Your task to perform on an android device: Open the web browser Image 0: 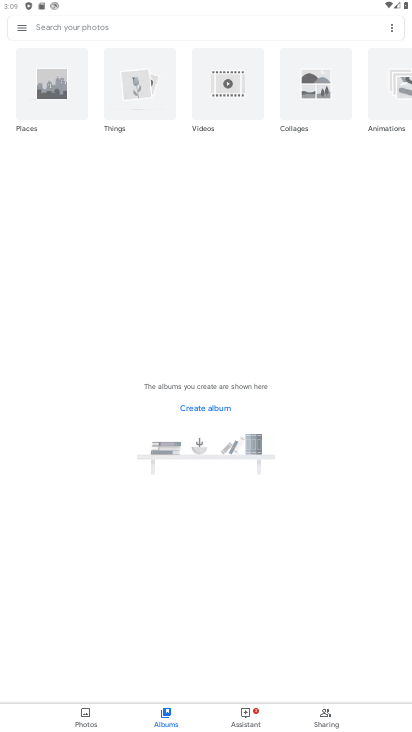
Step 0: press home button
Your task to perform on an android device: Open the web browser Image 1: 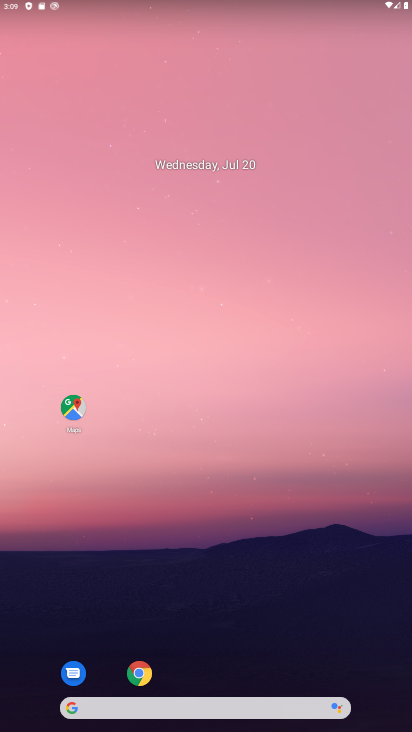
Step 1: click (138, 678)
Your task to perform on an android device: Open the web browser Image 2: 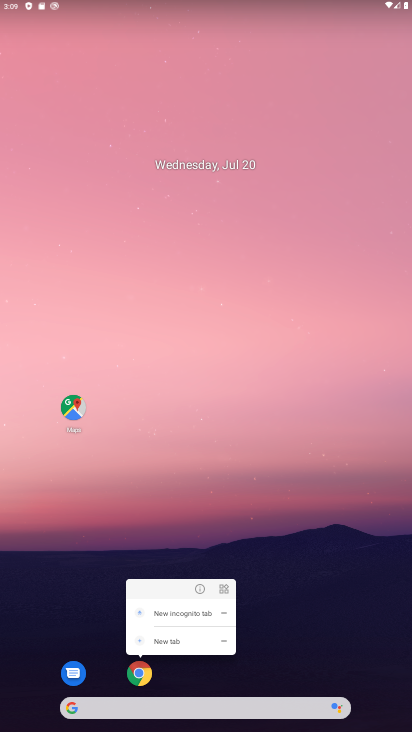
Step 2: click (147, 678)
Your task to perform on an android device: Open the web browser Image 3: 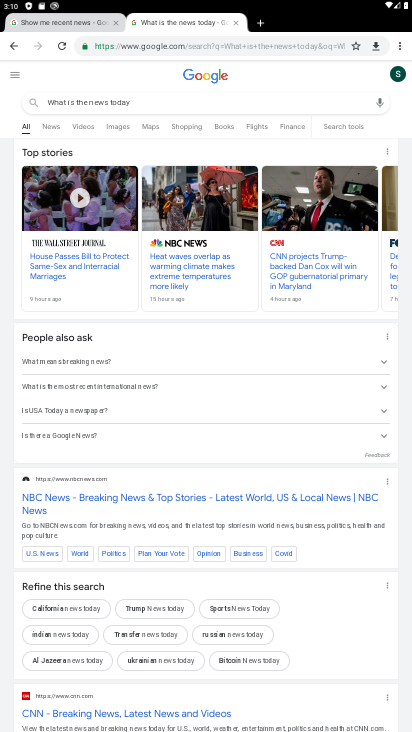
Step 3: task complete